Your task to perform on an android device: Go to Maps Image 0: 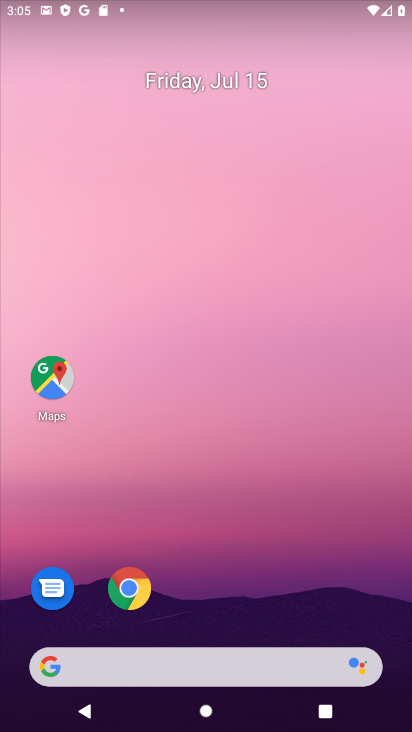
Step 0: click (49, 373)
Your task to perform on an android device: Go to Maps Image 1: 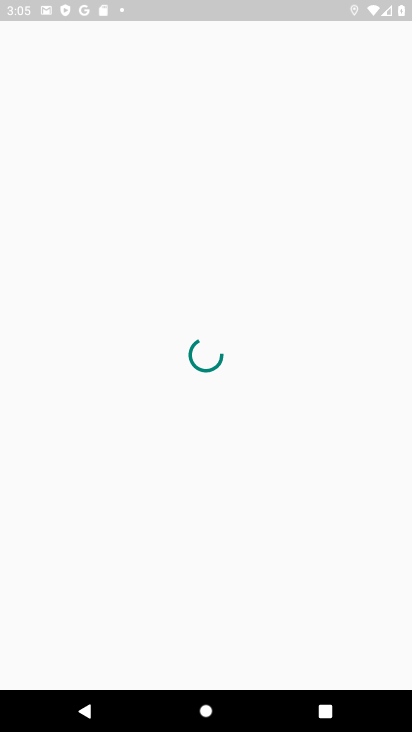
Step 1: task complete